Your task to perform on an android device: Open network settings Image 0: 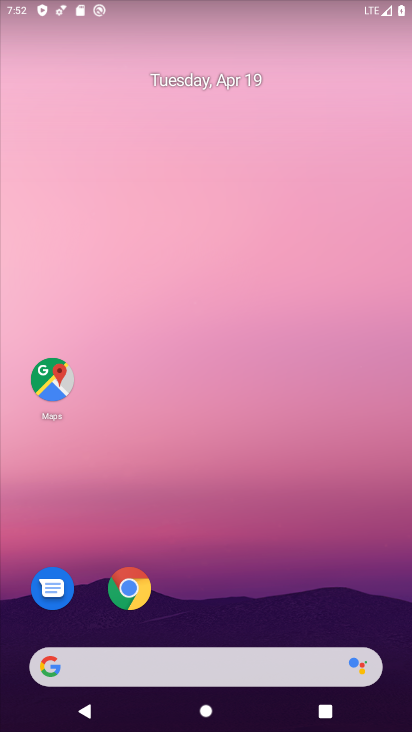
Step 0: drag from (216, 616) to (254, 119)
Your task to perform on an android device: Open network settings Image 1: 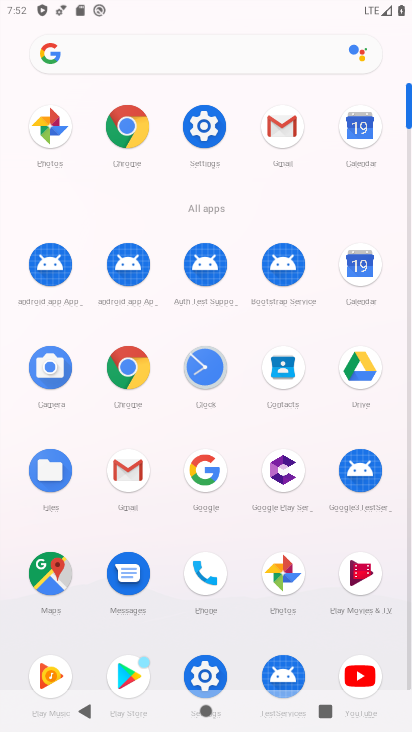
Step 1: click (199, 123)
Your task to perform on an android device: Open network settings Image 2: 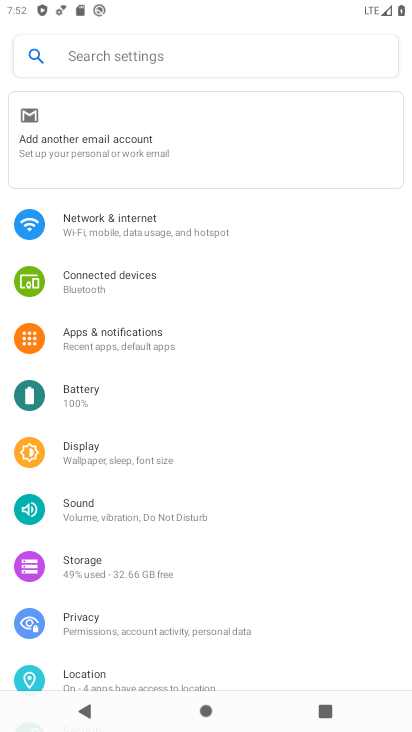
Step 2: click (122, 228)
Your task to perform on an android device: Open network settings Image 3: 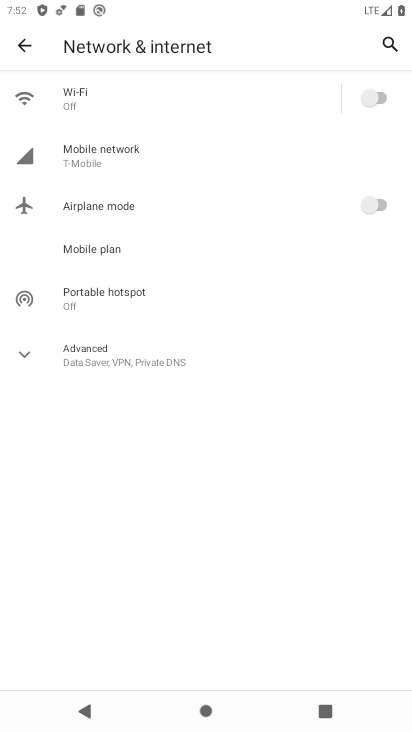
Step 3: click (79, 356)
Your task to perform on an android device: Open network settings Image 4: 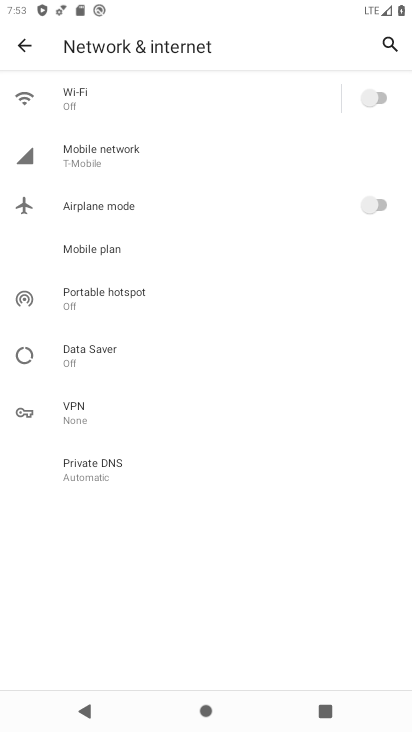
Step 4: task complete